Your task to perform on an android device: Open location settings Image 0: 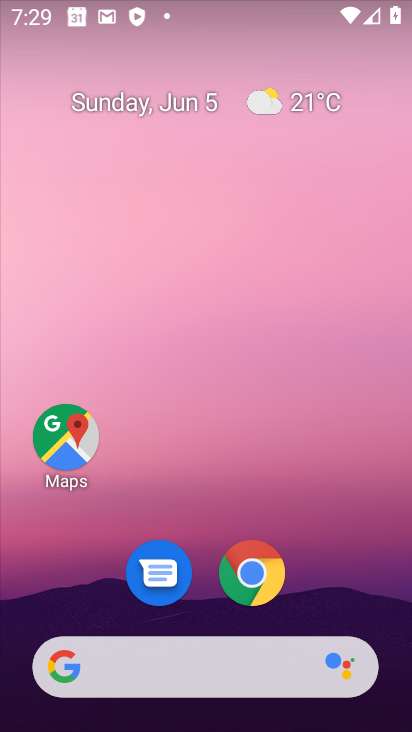
Step 0: drag from (318, 604) to (279, 222)
Your task to perform on an android device: Open location settings Image 1: 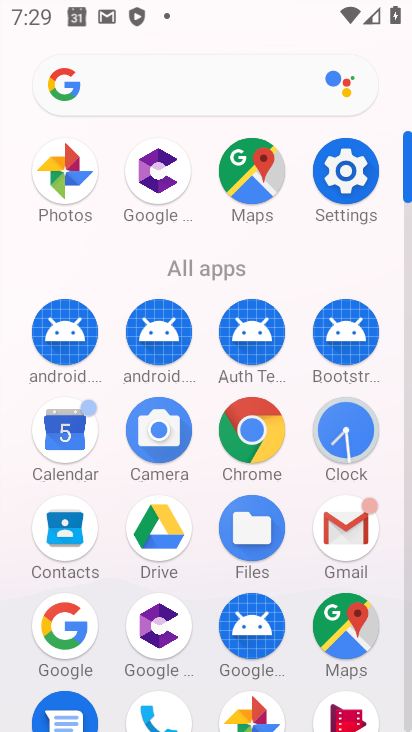
Step 1: click (324, 164)
Your task to perform on an android device: Open location settings Image 2: 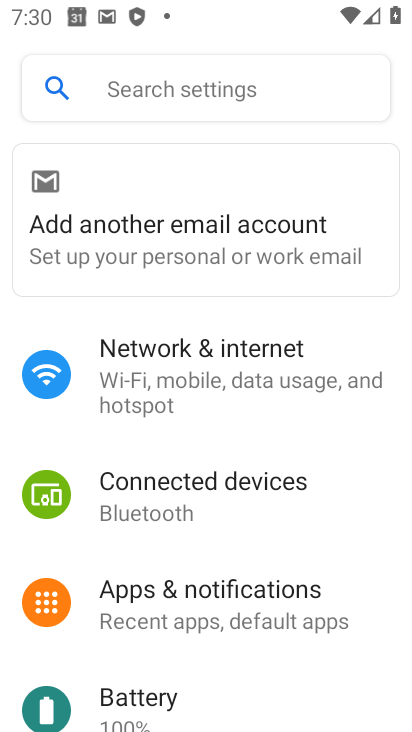
Step 2: drag from (141, 672) to (229, 300)
Your task to perform on an android device: Open location settings Image 3: 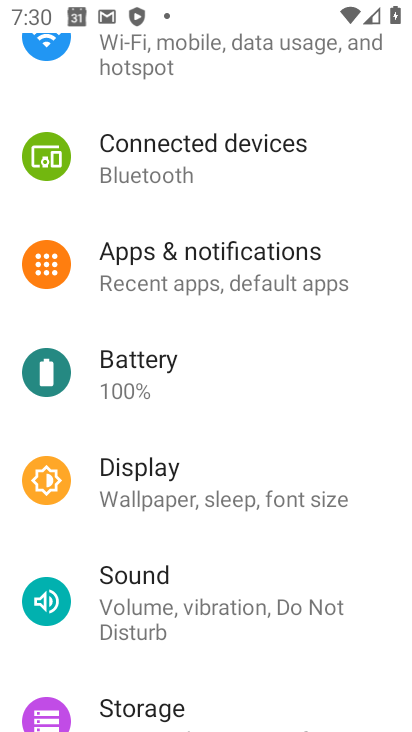
Step 3: drag from (121, 599) to (206, 205)
Your task to perform on an android device: Open location settings Image 4: 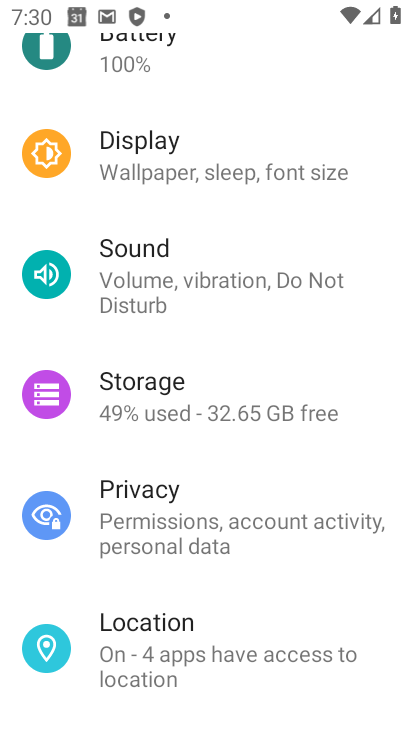
Step 4: click (135, 634)
Your task to perform on an android device: Open location settings Image 5: 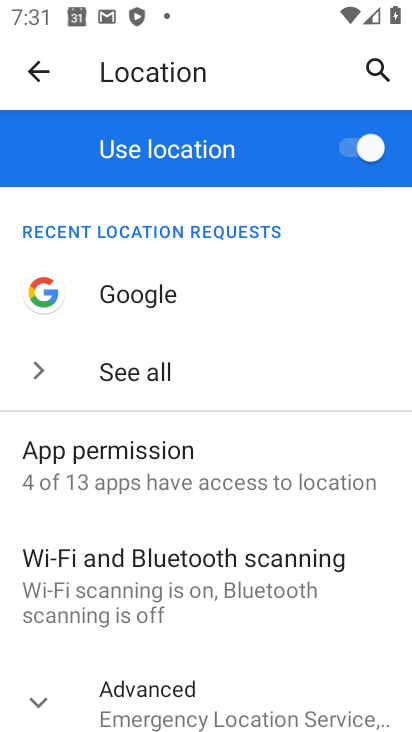
Step 5: task complete